Your task to perform on an android device: turn pop-ups off in chrome Image 0: 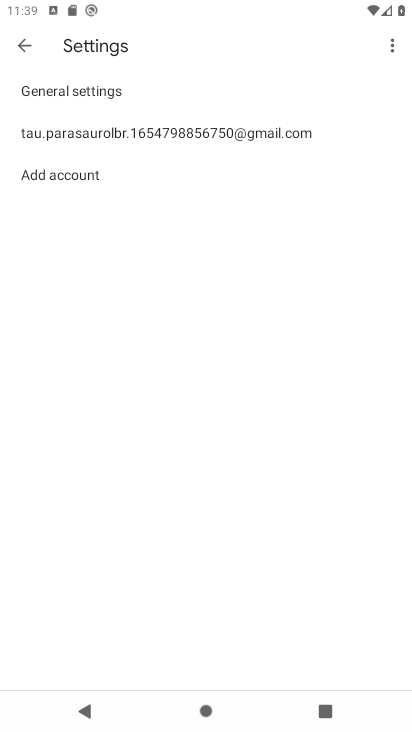
Step 0: press home button
Your task to perform on an android device: turn pop-ups off in chrome Image 1: 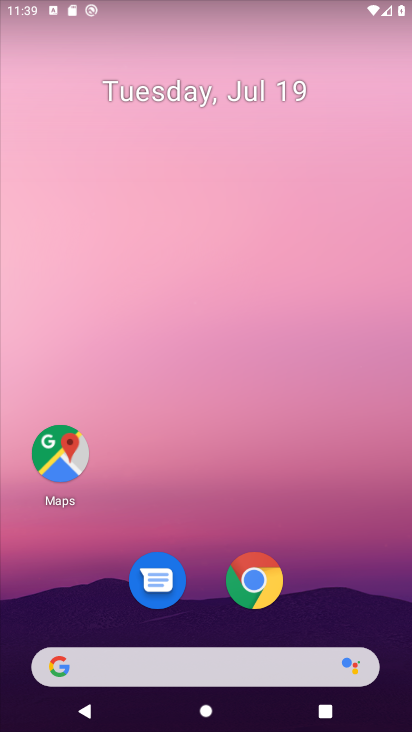
Step 1: click (262, 587)
Your task to perform on an android device: turn pop-ups off in chrome Image 2: 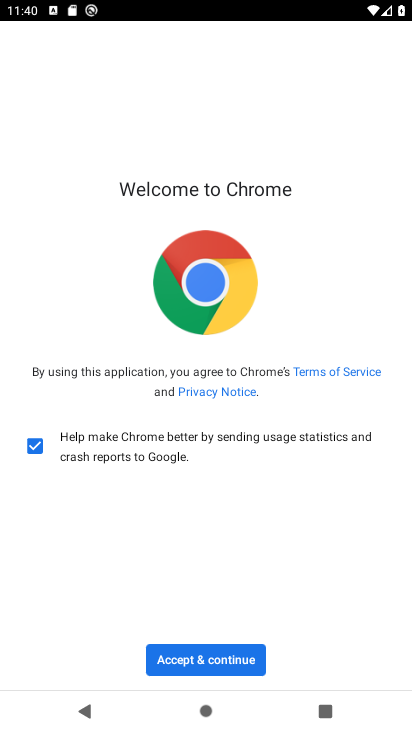
Step 2: click (247, 661)
Your task to perform on an android device: turn pop-ups off in chrome Image 3: 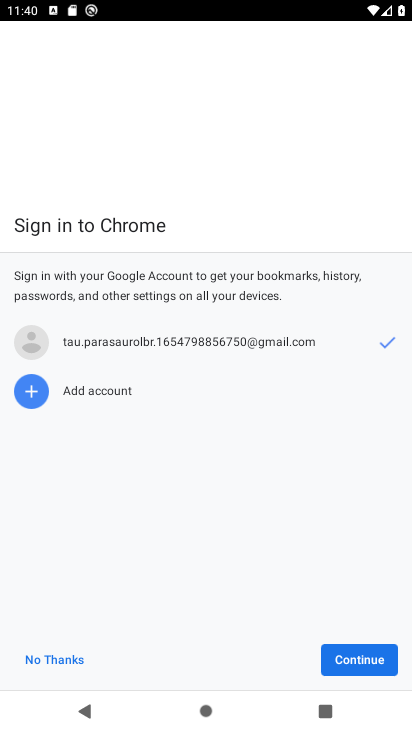
Step 3: click (340, 661)
Your task to perform on an android device: turn pop-ups off in chrome Image 4: 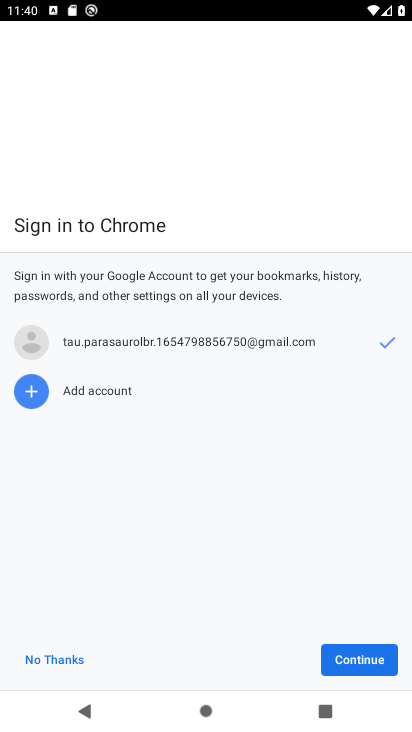
Step 4: click (361, 663)
Your task to perform on an android device: turn pop-ups off in chrome Image 5: 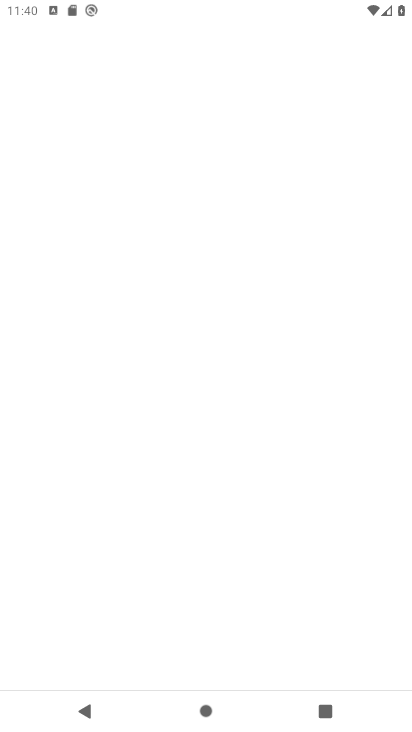
Step 5: click (363, 659)
Your task to perform on an android device: turn pop-ups off in chrome Image 6: 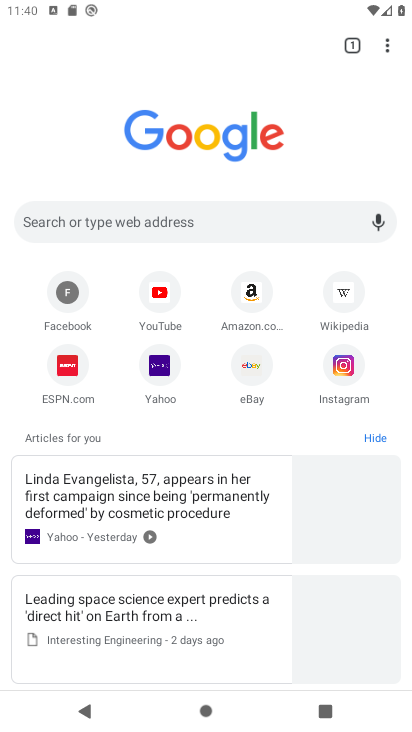
Step 6: click (386, 45)
Your task to perform on an android device: turn pop-ups off in chrome Image 7: 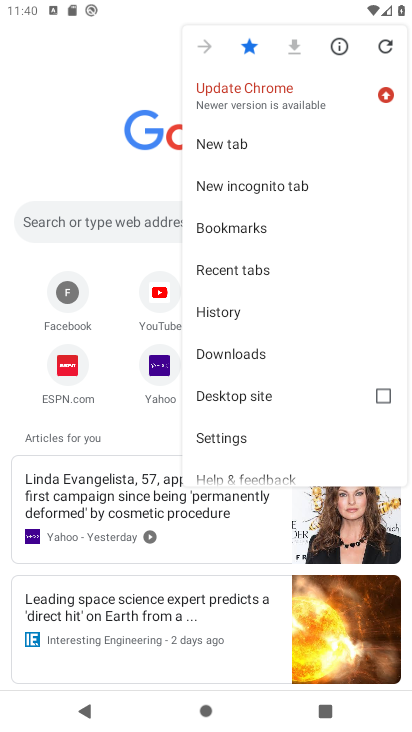
Step 7: click (227, 436)
Your task to perform on an android device: turn pop-ups off in chrome Image 8: 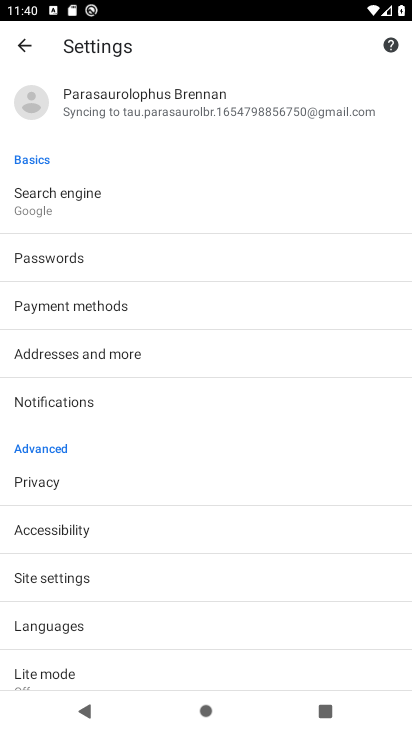
Step 8: click (93, 578)
Your task to perform on an android device: turn pop-ups off in chrome Image 9: 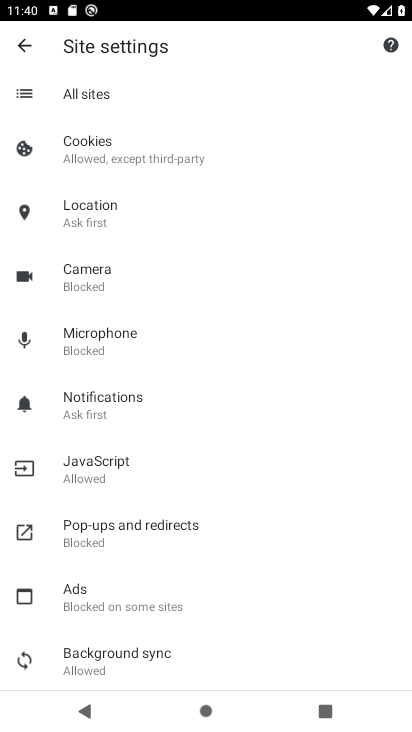
Step 9: click (163, 519)
Your task to perform on an android device: turn pop-ups off in chrome Image 10: 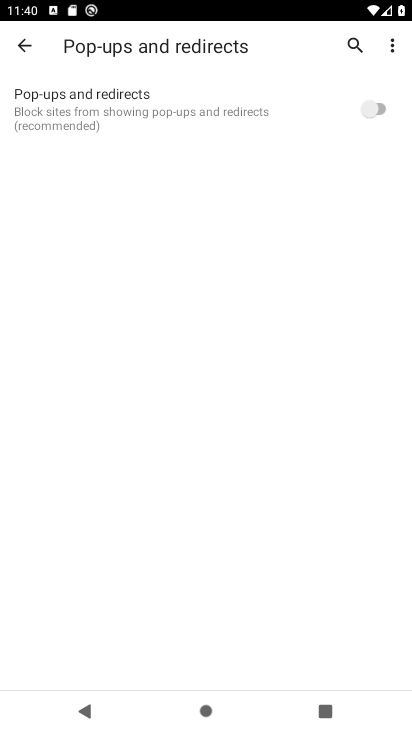
Step 10: task complete